Your task to perform on an android device: Open Chrome and go to settings Image 0: 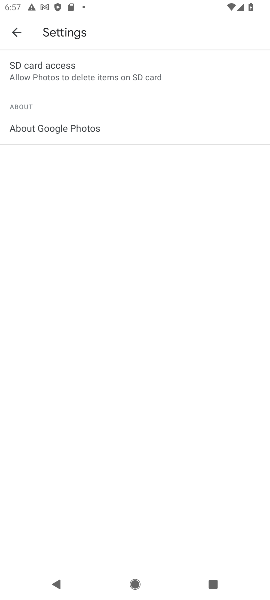
Step 0: drag from (206, 424) to (206, 228)
Your task to perform on an android device: Open Chrome and go to settings Image 1: 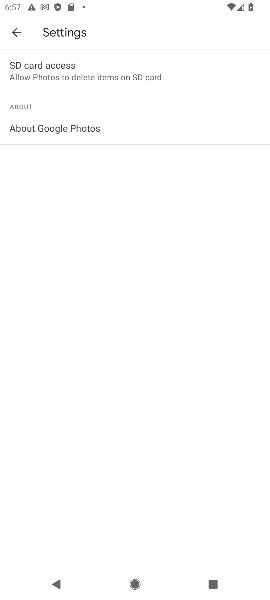
Step 1: drag from (107, 270) to (194, 155)
Your task to perform on an android device: Open Chrome and go to settings Image 2: 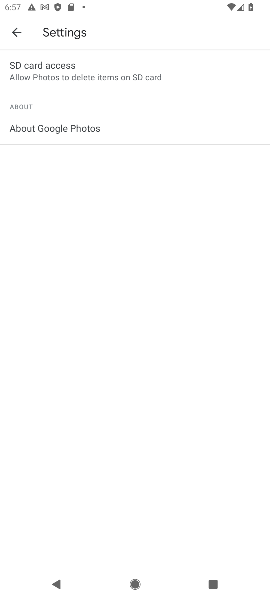
Step 2: press home button
Your task to perform on an android device: Open Chrome and go to settings Image 3: 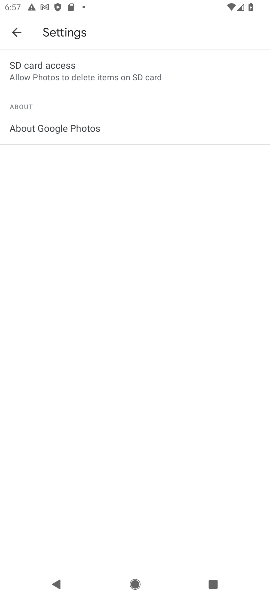
Step 3: press home button
Your task to perform on an android device: Open Chrome and go to settings Image 4: 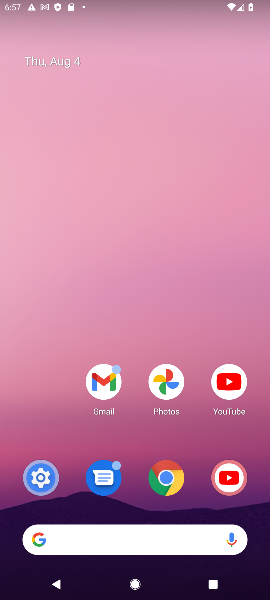
Step 4: click (158, 484)
Your task to perform on an android device: Open Chrome and go to settings Image 5: 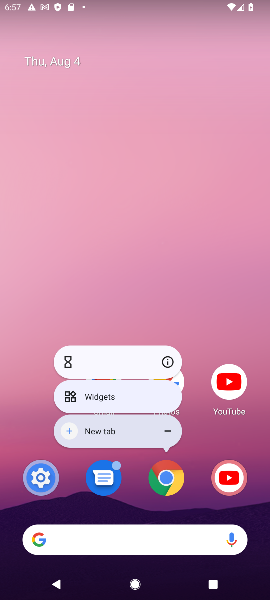
Step 5: click (168, 365)
Your task to perform on an android device: Open Chrome and go to settings Image 6: 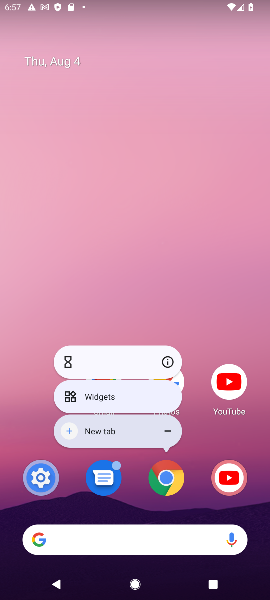
Step 6: click (172, 363)
Your task to perform on an android device: Open Chrome and go to settings Image 7: 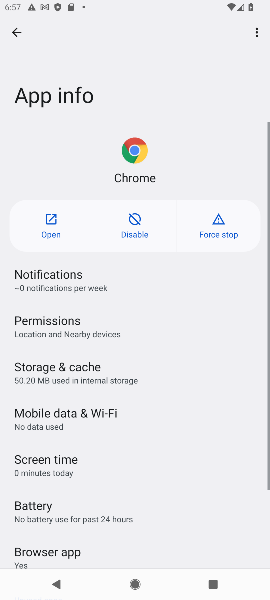
Step 7: click (49, 224)
Your task to perform on an android device: Open Chrome and go to settings Image 8: 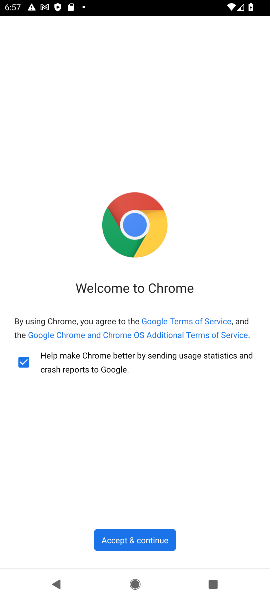
Step 8: drag from (165, 430) to (160, 153)
Your task to perform on an android device: Open Chrome and go to settings Image 9: 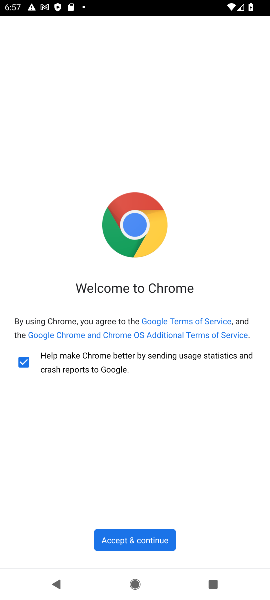
Step 9: click (131, 546)
Your task to perform on an android device: Open Chrome and go to settings Image 10: 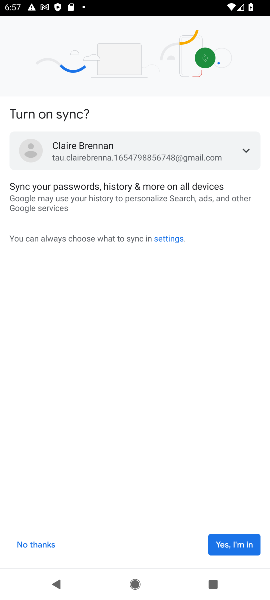
Step 10: drag from (184, 416) to (182, 205)
Your task to perform on an android device: Open Chrome and go to settings Image 11: 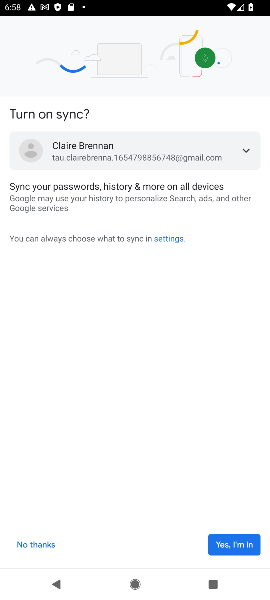
Step 11: click (229, 540)
Your task to perform on an android device: Open Chrome and go to settings Image 12: 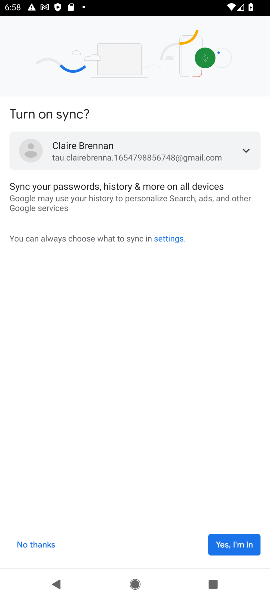
Step 12: click (228, 539)
Your task to perform on an android device: Open Chrome and go to settings Image 13: 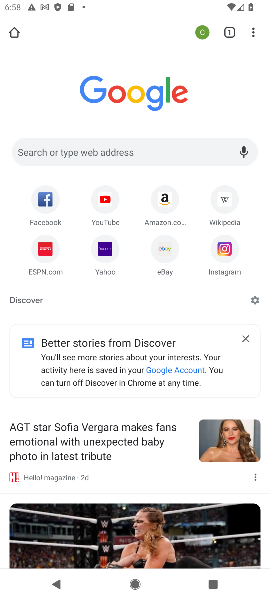
Step 13: task complete